Your task to perform on an android device: Check the weather Image 0: 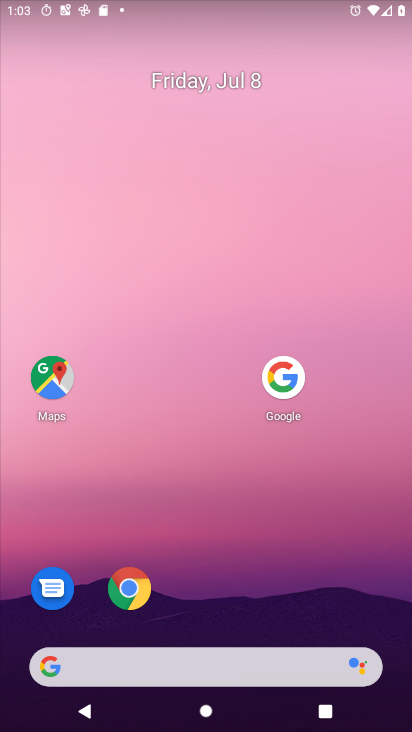
Step 0: click (133, 661)
Your task to perform on an android device: Check the weather Image 1: 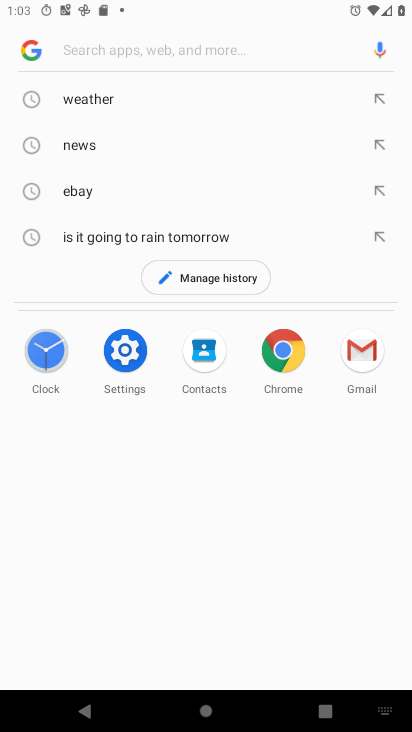
Step 1: click (104, 98)
Your task to perform on an android device: Check the weather Image 2: 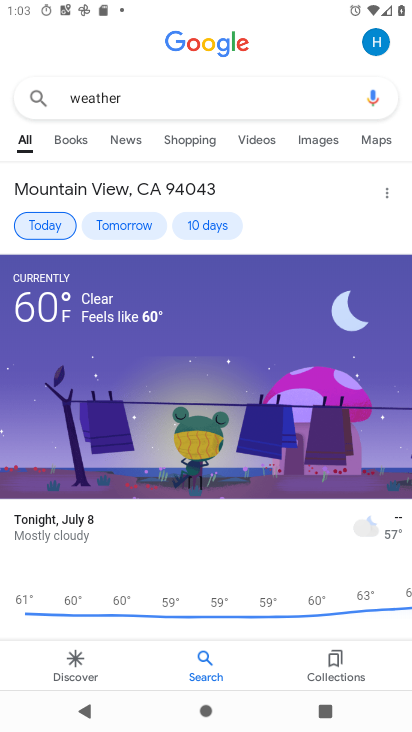
Step 2: task complete